Your task to perform on an android device: Open calendar and show me the second week of next month Image 0: 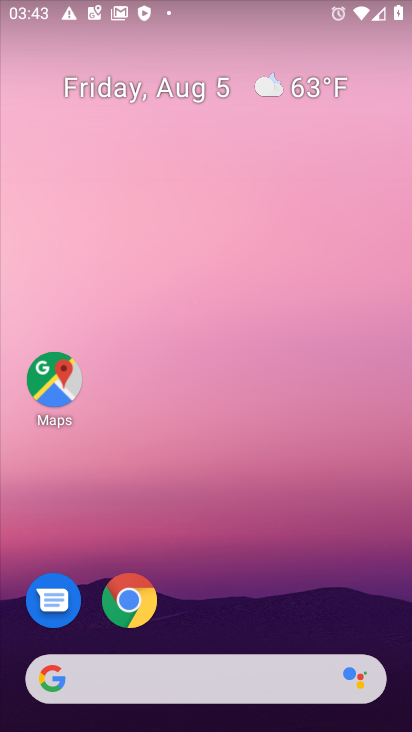
Step 0: drag from (177, 679) to (247, 152)
Your task to perform on an android device: Open calendar and show me the second week of next month Image 1: 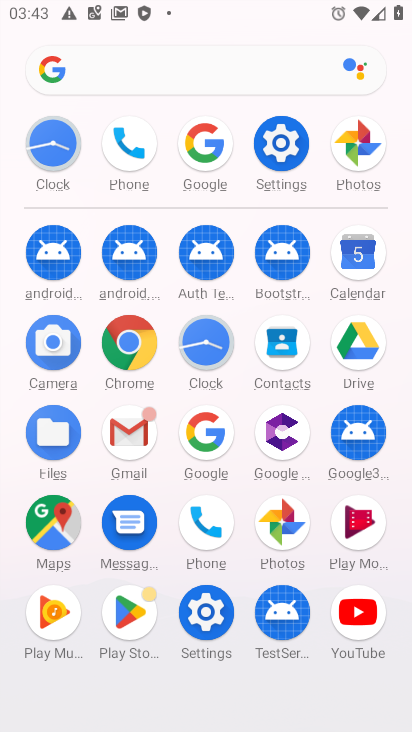
Step 1: click (355, 255)
Your task to perform on an android device: Open calendar and show me the second week of next month Image 2: 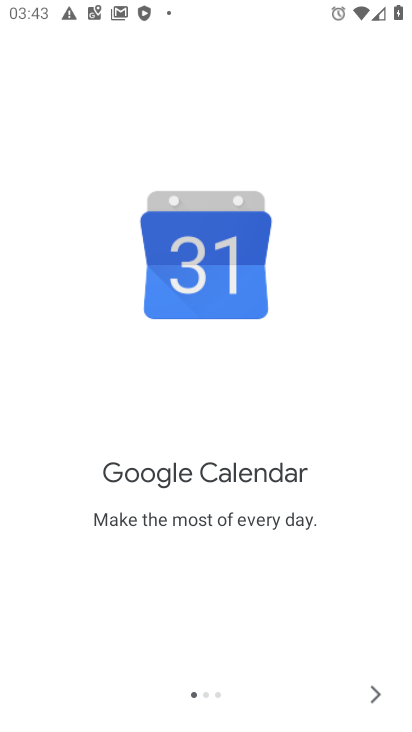
Step 2: click (376, 691)
Your task to perform on an android device: Open calendar and show me the second week of next month Image 3: 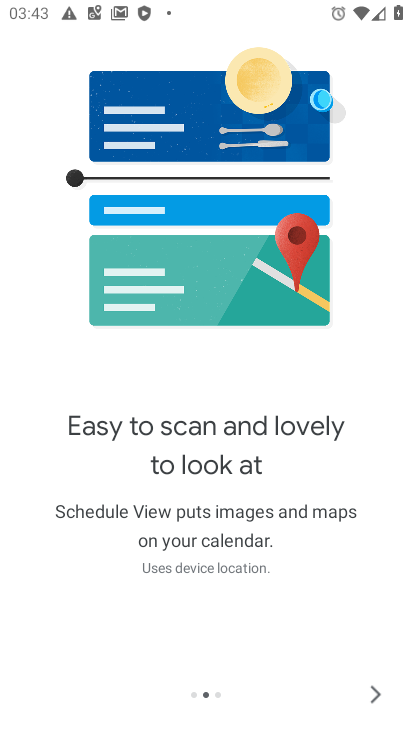
Step 3: click (376, 691)
Your task to perform on an android device: Open calendar and show me the second week of next month Image 4: 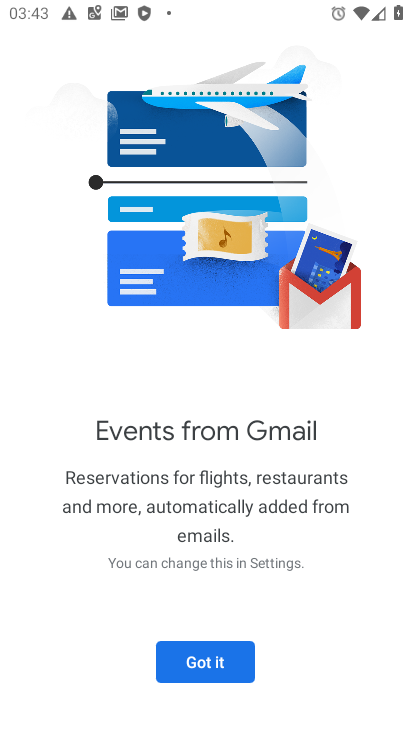
Step 4: click (195, 667)
Your task to perform on an android device: Open calendar and show me the second week of next month Image 5: 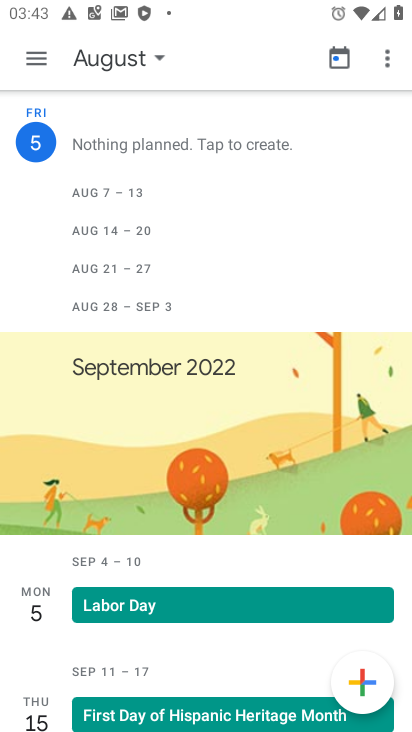
Step 5: click (157, 60)
Your task to perform on an android device: Open calendar and show me the second week of next month Image 6: 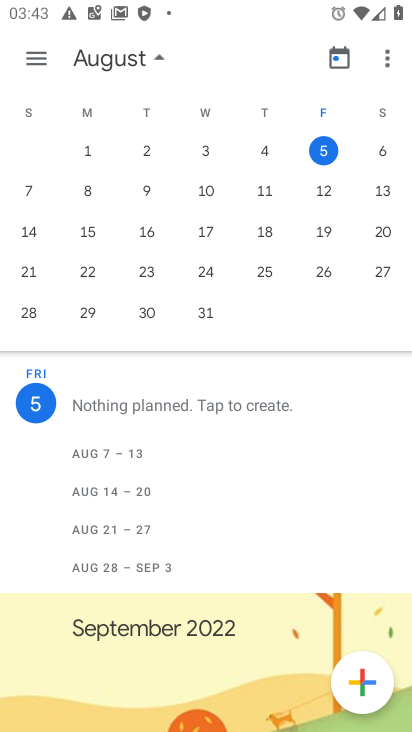
Step 6: drag from (359, 216) to (3, 235)
Your task to perform on an android device: Open calendar and show me the second week of next month Image 7: 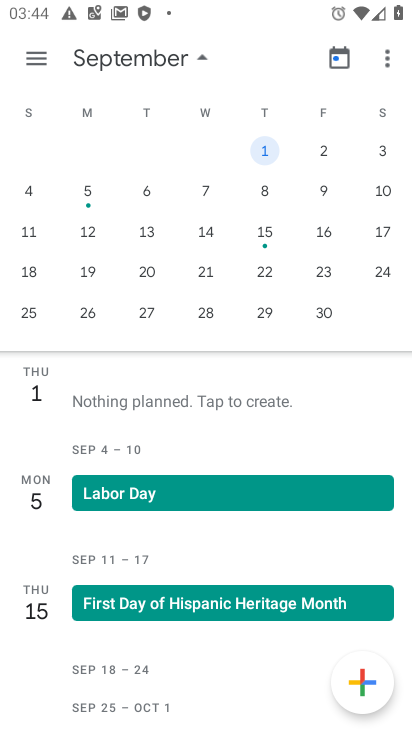
Step 7: click (89, 239)
Your task to perform on an android device: Open calendar and show me the second week of next month Image 8: 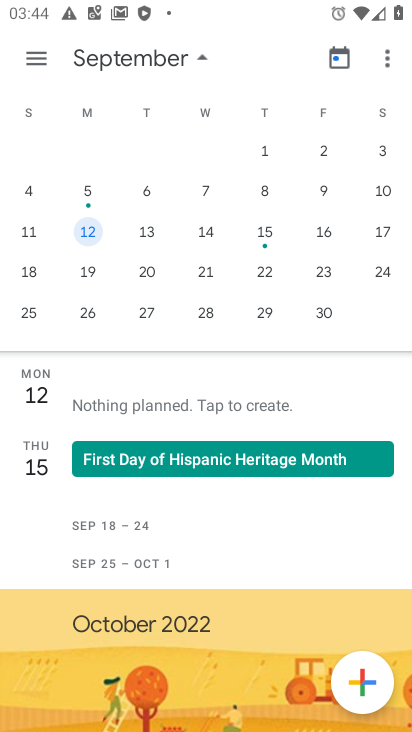
Step 8: click (33, 60)
Your task to perform on an android device: Open calendar and show me the second week of next month Image 9: 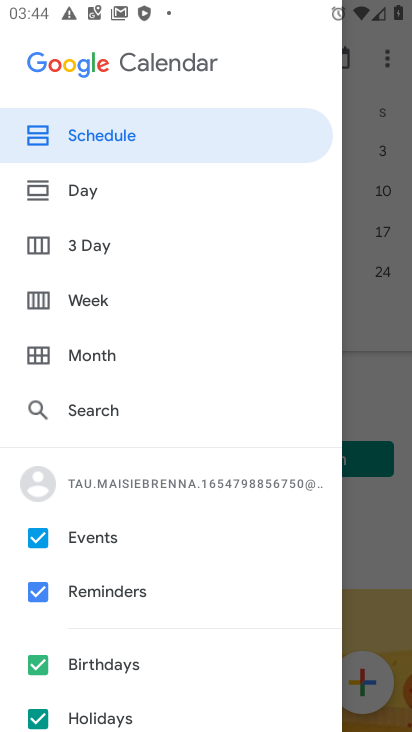
Step 9: click (97, 304)
Your task to perform on an android device: Open calendar and show me the second week of next month Image 10: 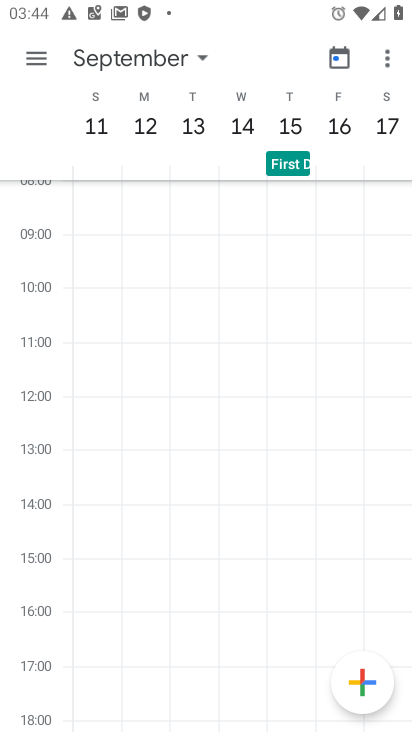
Step 10: task complete